Your task to perform on an android device: turn off improve location accuracy Image 0: 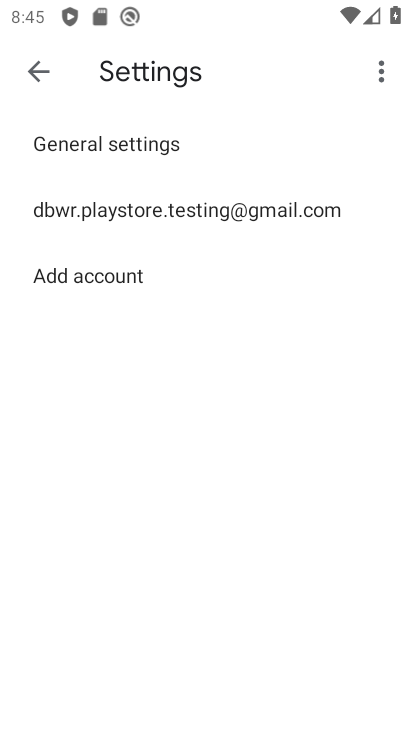
Step 0: press home button
Your task to perform on an android device: turn off improve location accuracy Image 1: 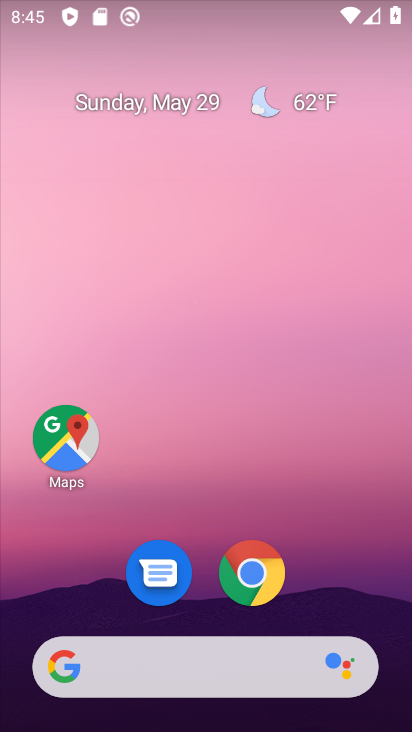
Step 1: drag from (350, 553) to (344, 205)
Your task to perform on an android device: turn off improve location accuracy Image 2: 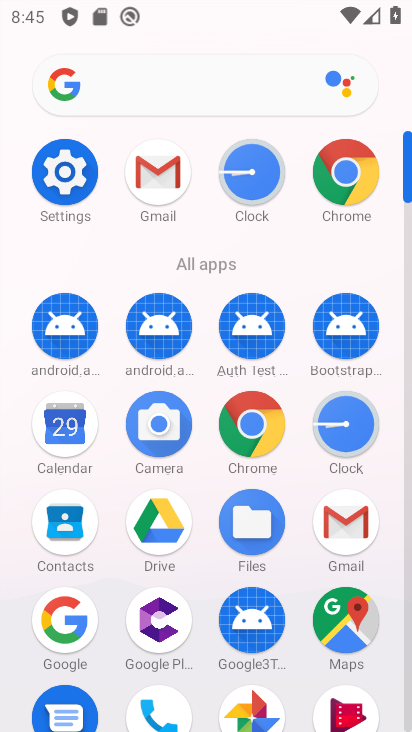
Step 2: drag from (117, 682) to (127, 379)
Your task to perform on an android device: turn off improve location accuracy Image 3: 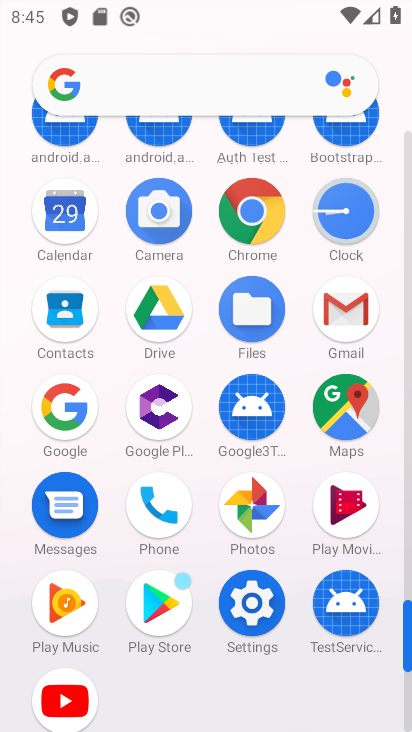
Step 3: click (240, 610)
Your task to perform on an android device: turn off improve location accuracy Image 4: 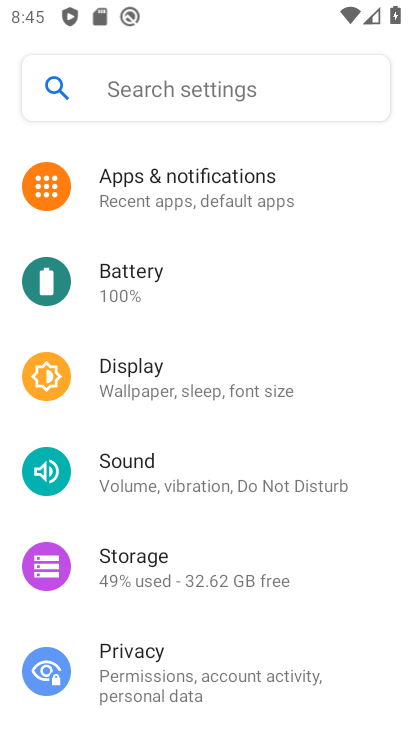
Step 4: drag from (225, 646) to (225, 418)
Your task to perform on an android device: turn off improve location accuracy Image 5: 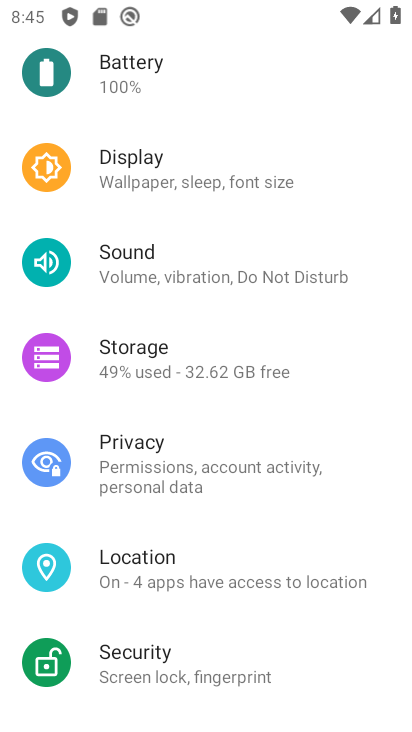
Step 5: click (194, 579)
Your task to perform on an android device: turn off improve location accuracy Image 6: 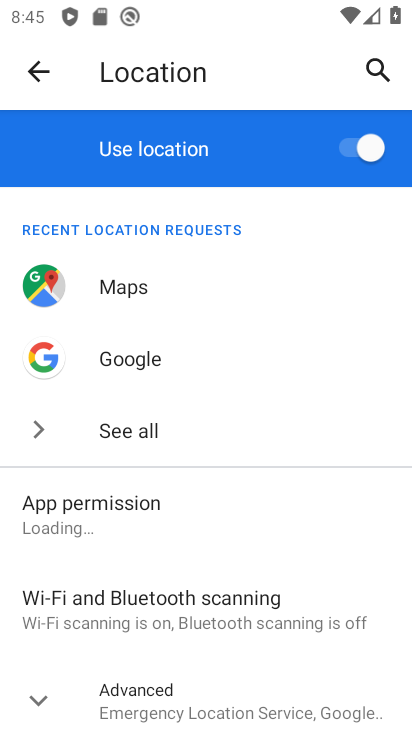
Step 6: drag from (364, 552) to (374, 255)
Your task to perform on an android device: turn off improve location accuracy Image 7: 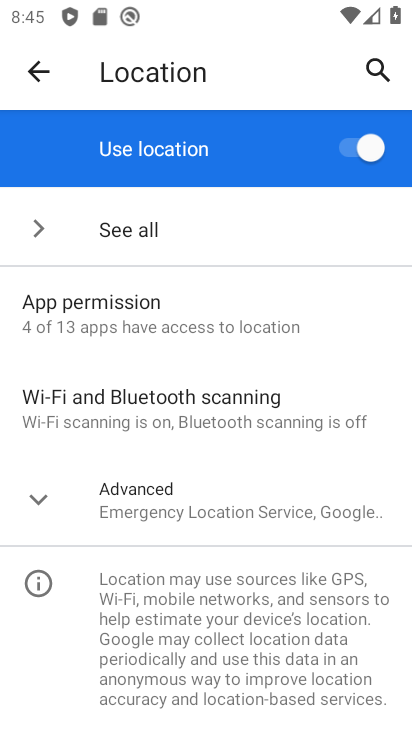
Step 7: click (39, 507)
Your task to perform on an android device: turn off improve location accuracy Image 8: 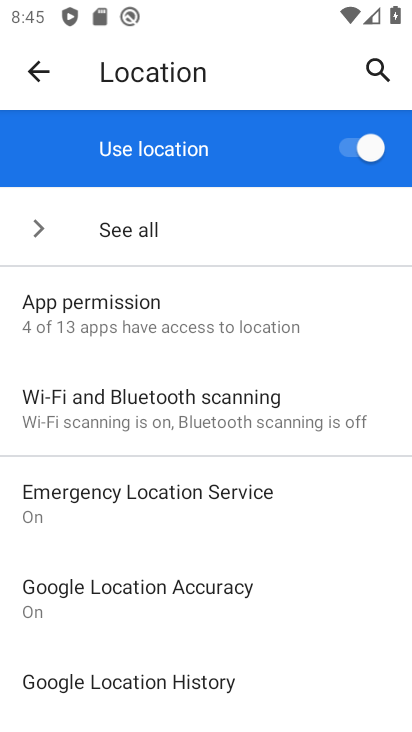
Step 8: click (165, 591)
Your task to perform on an android device: turn off improve location accuracy Image 9: 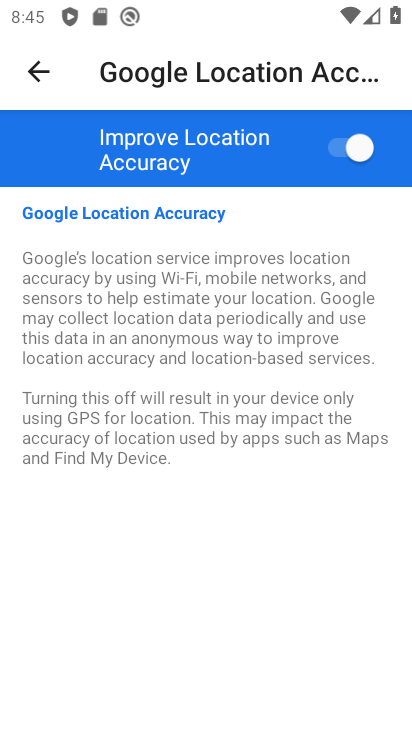
Step 9: click (351, 147)
Your task to perform on an android device: turn off improve location accuracy Image 10: 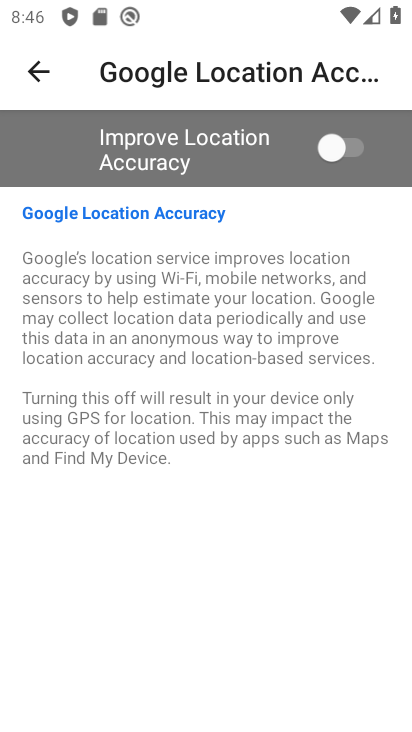
Step 10: task complete